Your task to perform on an android device: Show me popular games on the Play Store Image 0: 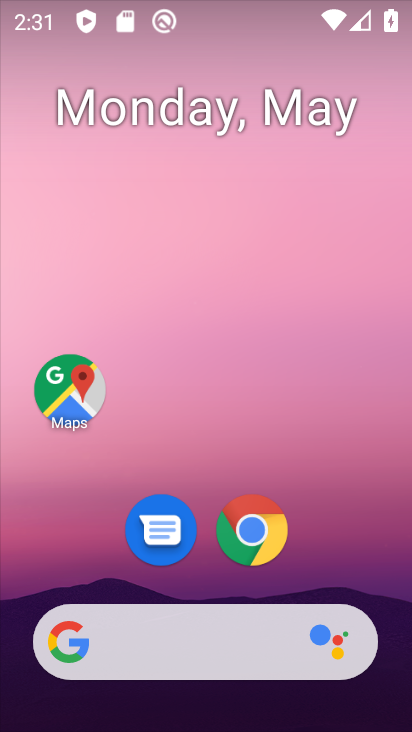
Step 0: drag from (188, 575) to (252, 55)
Your task to perform on an android device: Show me popular games on the Play Store Image 1: 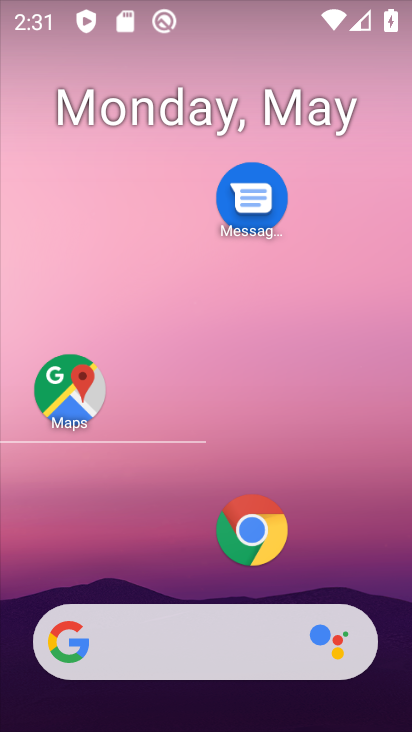
Step 1: drag from (155, 469) to (157, 115)
Your task to perform on an android device: Show me popular games on the Play Store Image 2: 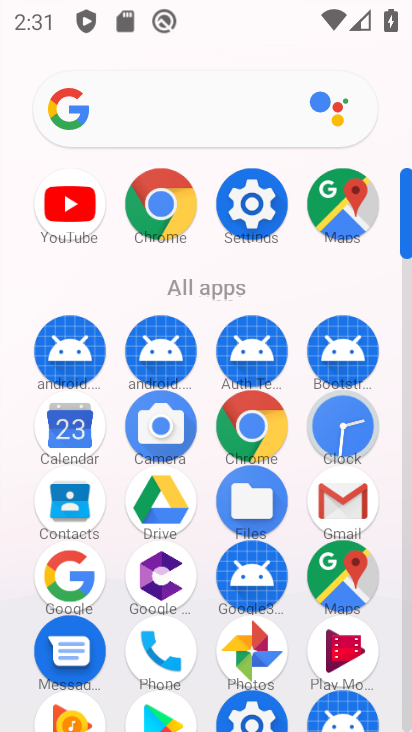
Step 2: drag from (160, 579) to (239, 158)
Your task to perform on an android device: Show me popular games on the Play Store Image 3: 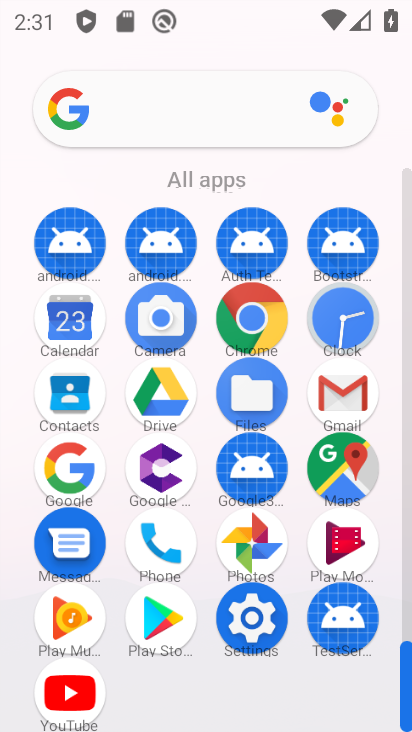
Step 3: click (159, 617)
Your task to perform on an android device: Show me popular games on the Play Store Image 4: 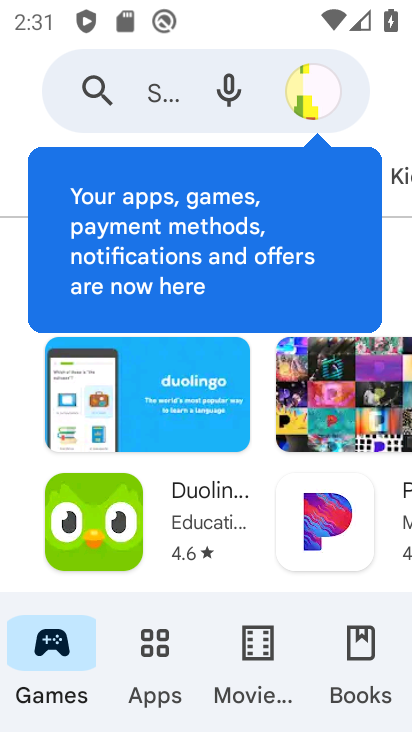
Step 4: click (68, 657)
Your task to perform on an android device: Show me popular games on the Play Store Image 5: 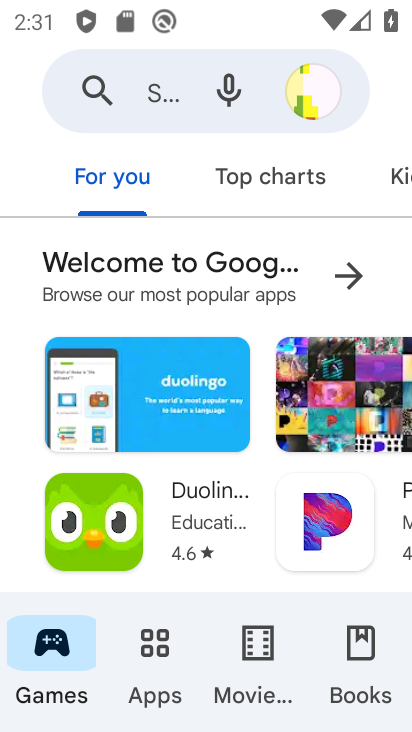
Step 5: drag from (216, 552) to (303, 115)
Your task to perform on an android device: Show me popular games on the Play Store Image 6: 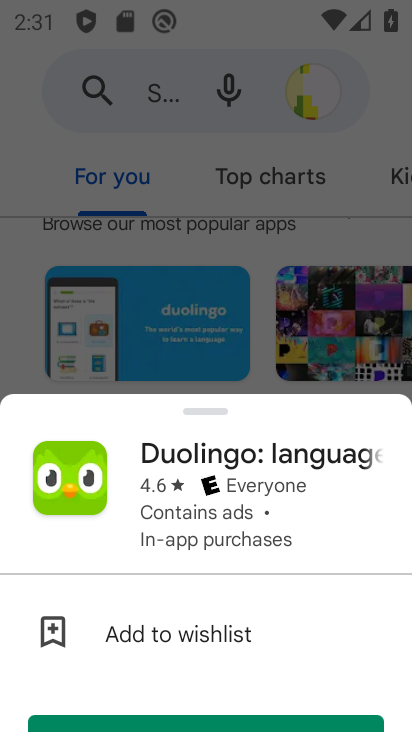
Step 6: click (186, 284)
Your task to perform on an android device: Show me popular games on the Play Store Image 7: 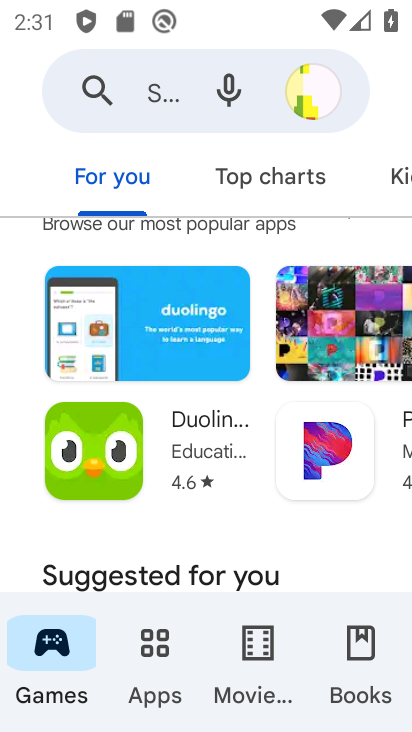
Step 7: drag from (229, 523) to (313, 107)
Your task to perform on an android device: Show me popular games on the Play Store Image 8: 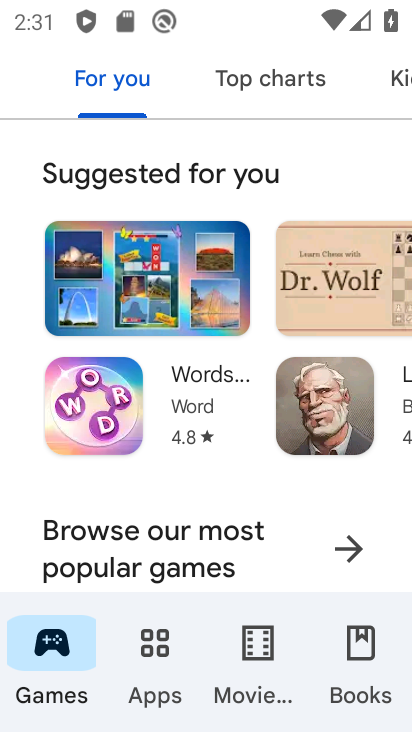
Step 8: drag from (220, 514) to (256, 377)
Your task to perform on an android device: Show me popular games on the Play Store Image 9: 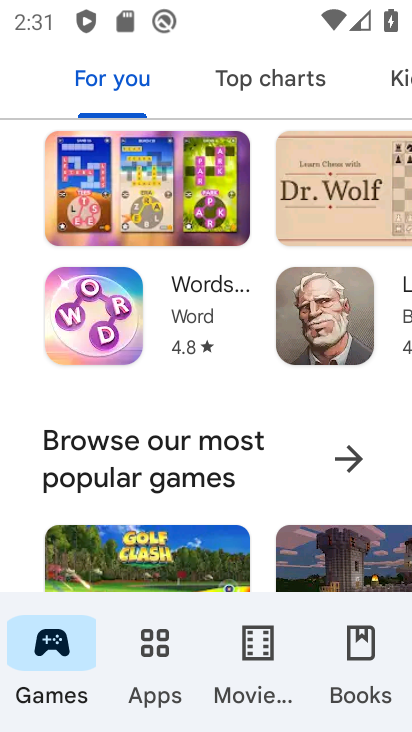
Step 9: click (347, 457)
Your task to perform on an android device: Show me popular games on the Play Store Image 10: 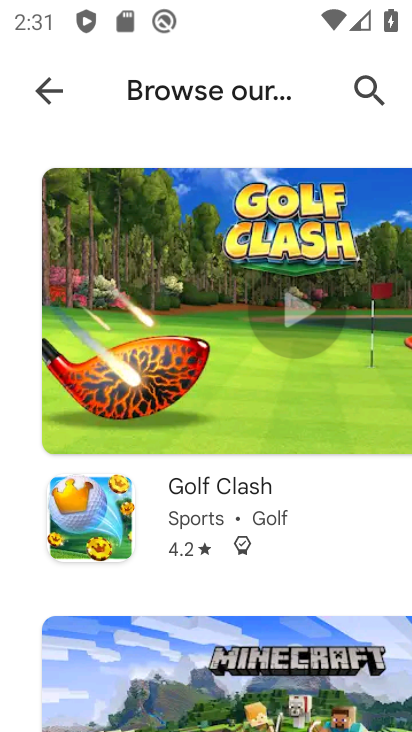
Step 10: task complete